Your task to perform on an android device: Add razer huntsman to the cart on target Image 0: 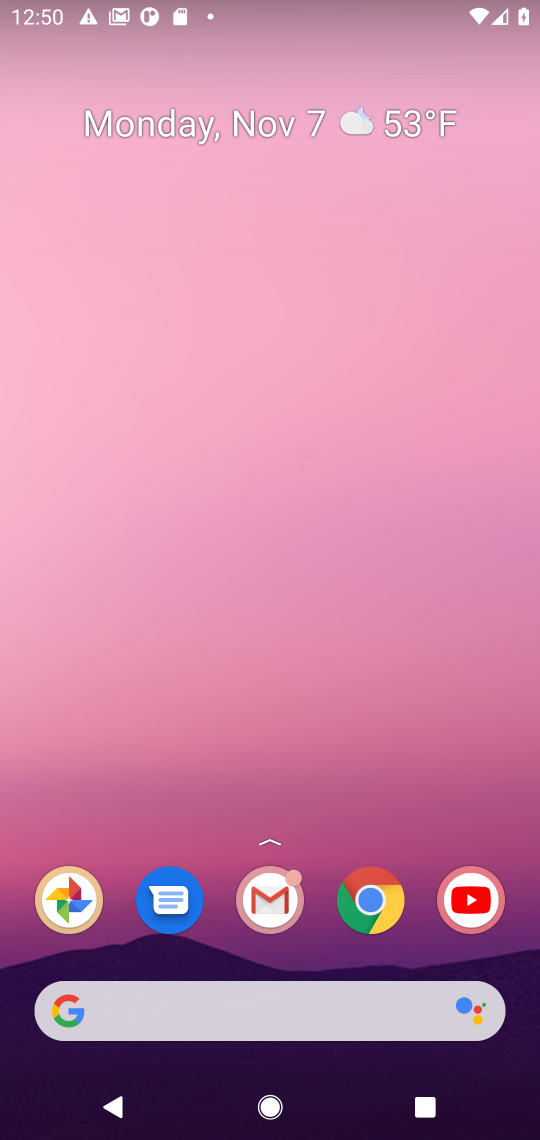
Step 0: click (266, 1034)
Your task to perform on an android device: Add razer huntsman to the cart on target Image 1: 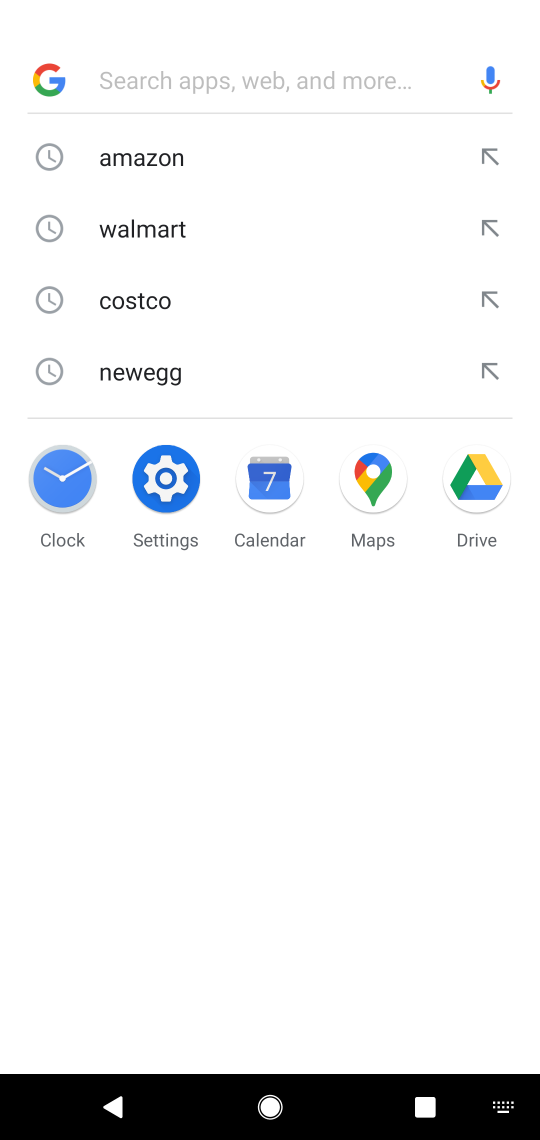
Step 1: type "razer huntmans"
Your task to perform on an android device: Add razer huntsman to the cart on target Image 2: 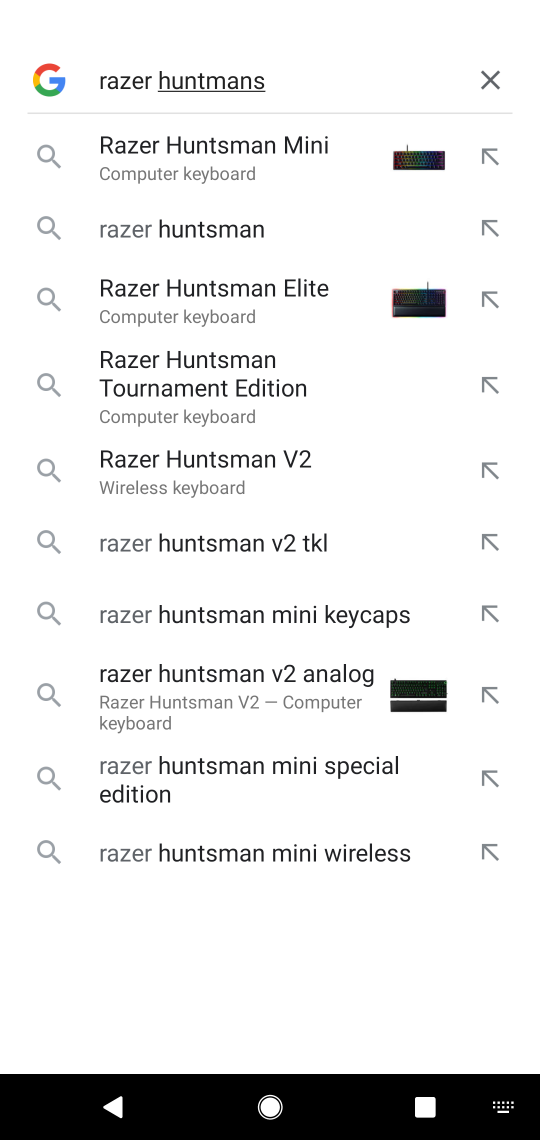
Step 2: click (205, 184)
Your task to perform on an android device: Add razer huntsman to the cart on target Image 3: 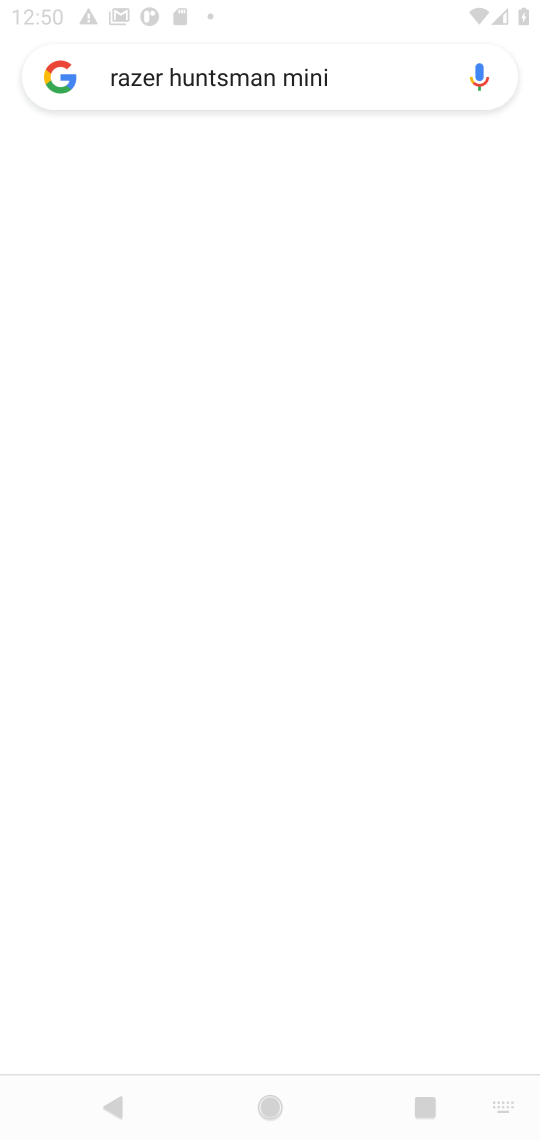
Step 3: task complete